Your task to perform on an android device: star an email in the gmail app Image 0: 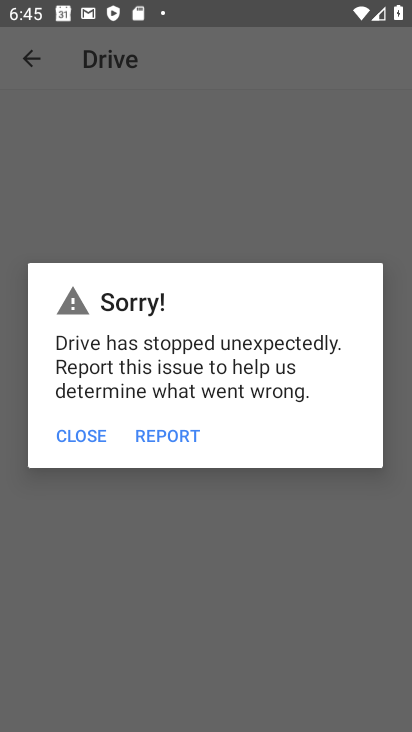
Step 0: press home button
Your task to perform on an android device: star an email in the gmail app Image 1: 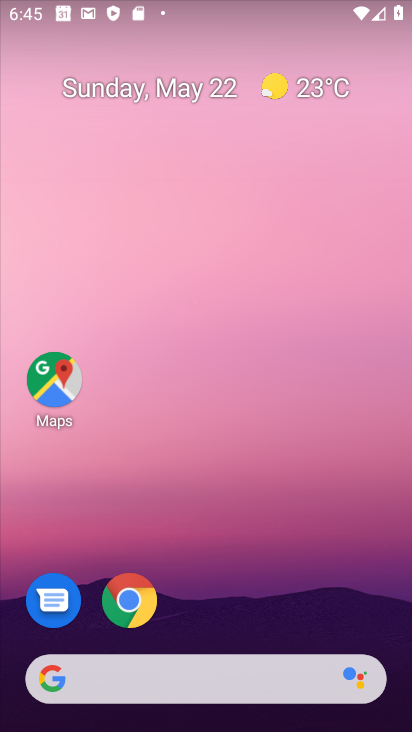
Step 1: drag from (364, 618) to (178, 34)
Your task to perform on an android device: star an email in the gmail app Image 2: 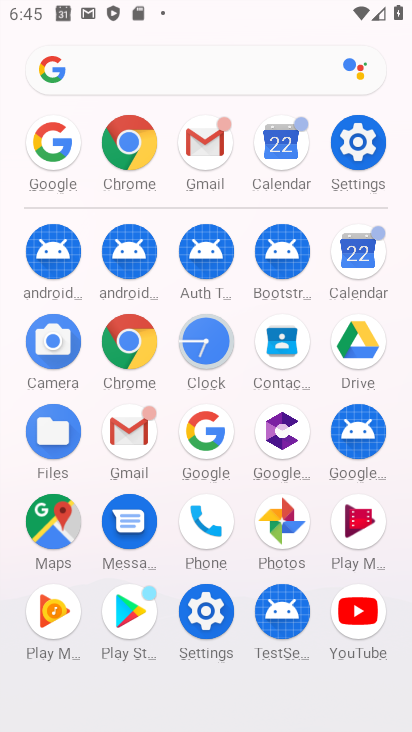
Step 2: click (137, 447)
Your task to perform on an android device: star an email in the gmail app Image 3: 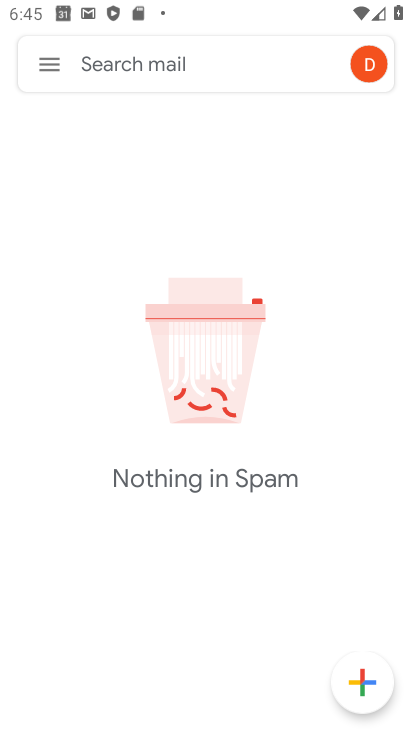
Step 3: click (27, 59)
Your task to perform on an android device: star an email in the gmail app Image 4: 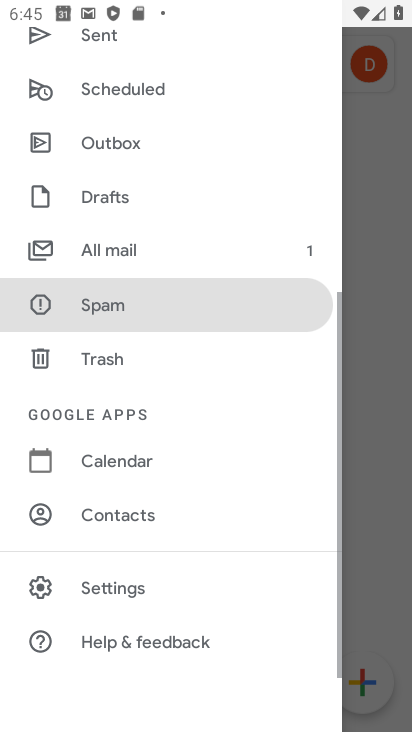
Step 4: drag from (73, 93) to (2, 613)
Your task to perform on an android device: star an email in the gmail app Image 5: 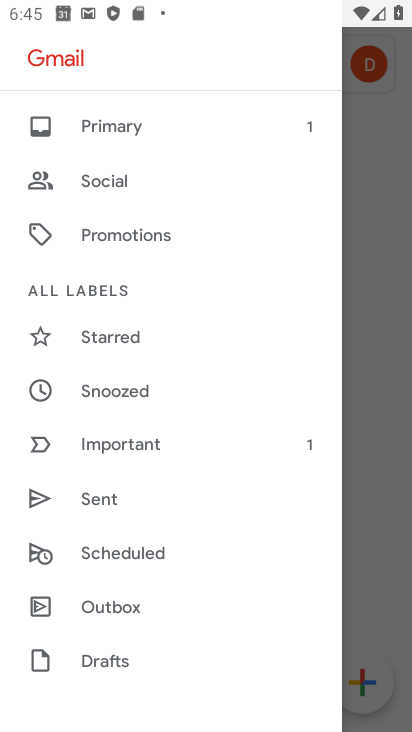
Step 5: click (175, 133)
Your task to perform on an android device: star an email in the gmail app Image 6: 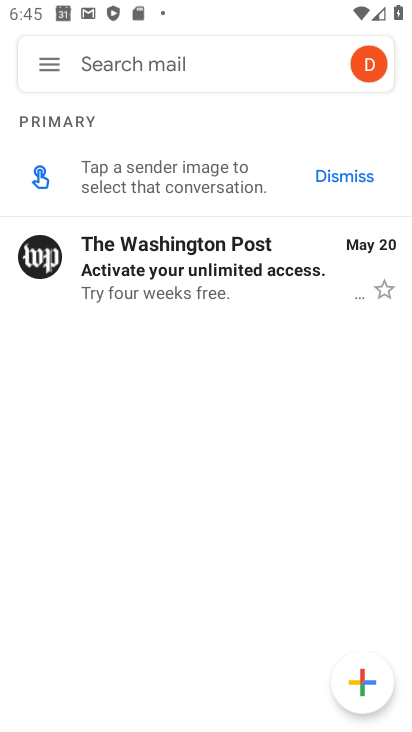
Step 6: click (349, 256)
Your task to perform on an android device: star an email in the gmail app Image 7: 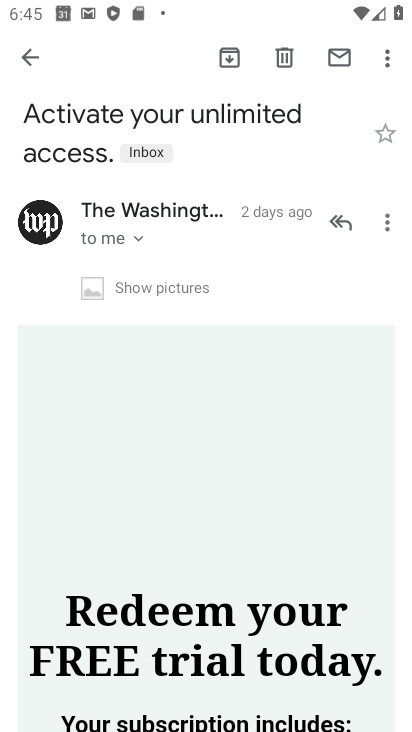
Step 7: click (385, 137)
Your task to perform on an android device: star an email in the gmail app Image 8: 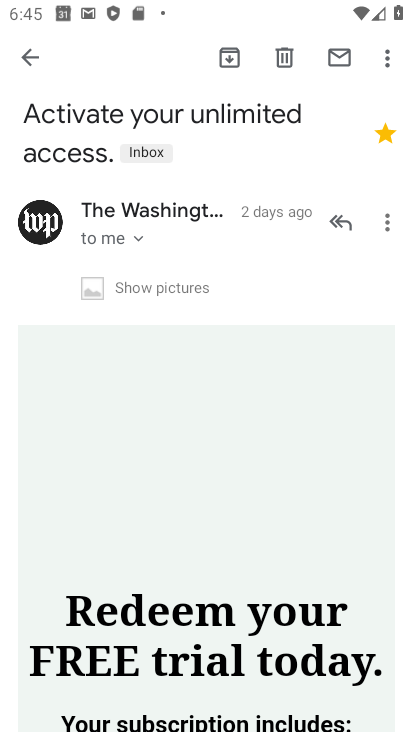
Step 8: task complete